Your task to perform on an android device: open a bookmark in the chrome app Image 0: 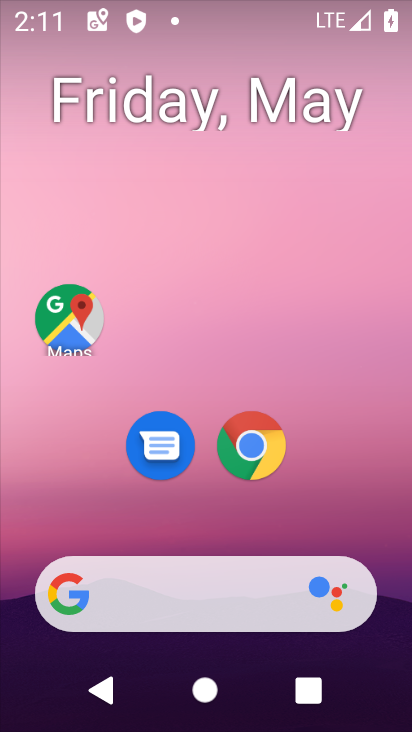
Step 0: press home button
Your task to perform on an android device: open a bookmark in the chrome app Image 1: 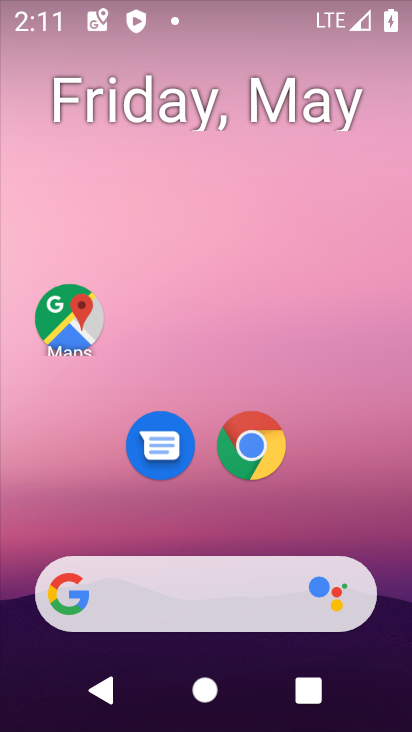
Step 1: click (245, 442)
Your task to perform on an android device: open a bookmark in the chrome app Image 2: 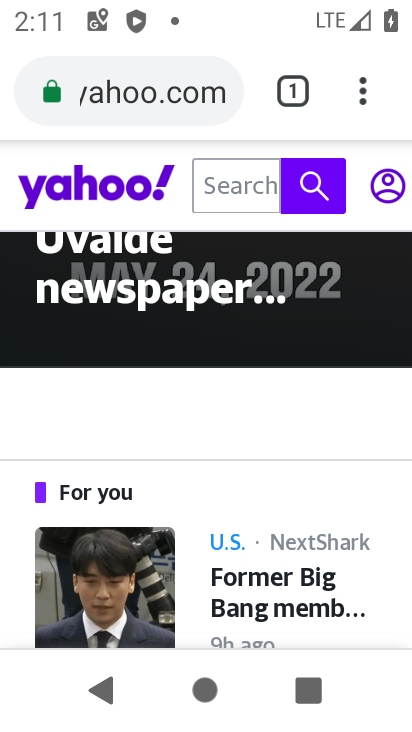
Step 2: click (363, 93)
Your task to perform on an android device: open a bookmark in the chrome app Image 3: 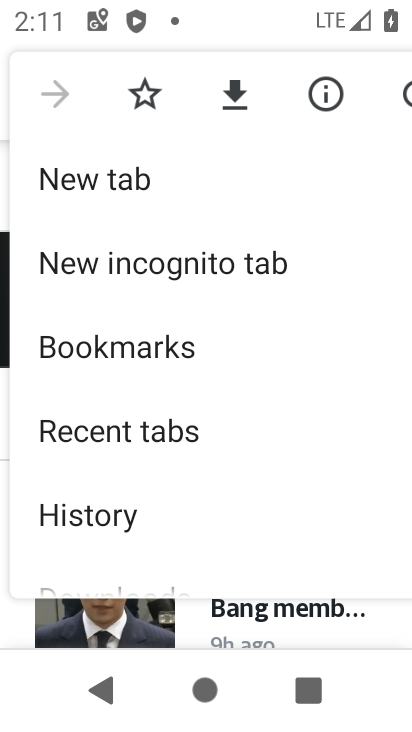
Step 3: click (203, 336)
Your task to perform on an android device: open a bookmark in the chrome app Image 4: 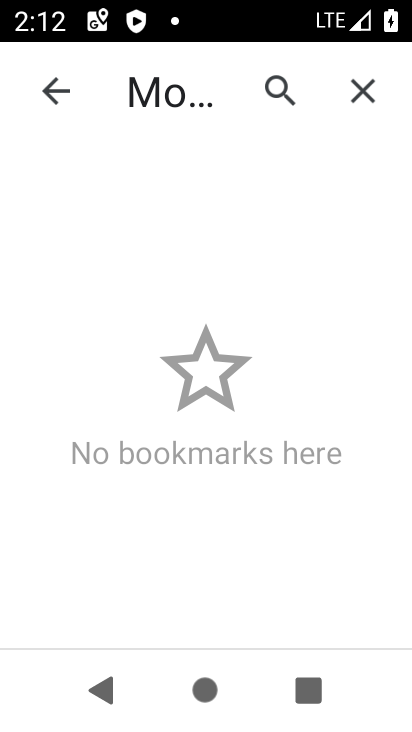
Step 4: task complete